Your task to perform on an android device: move an email to a new category in the gmail app Image 0: 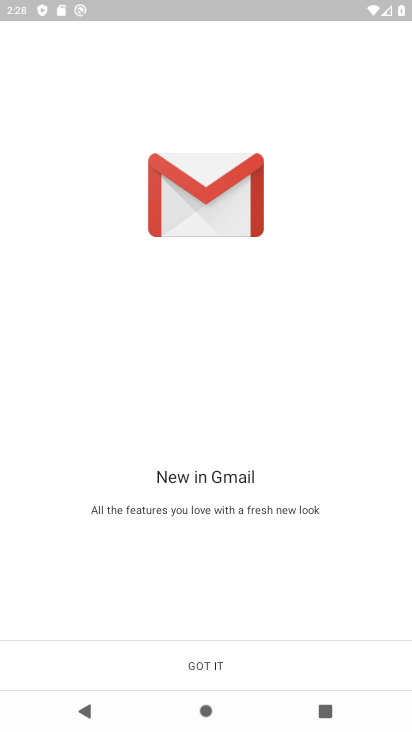
Step 0: click (226, 668)
Your task to perform on an android device: move an email to a new category in the gmail app Image 1: 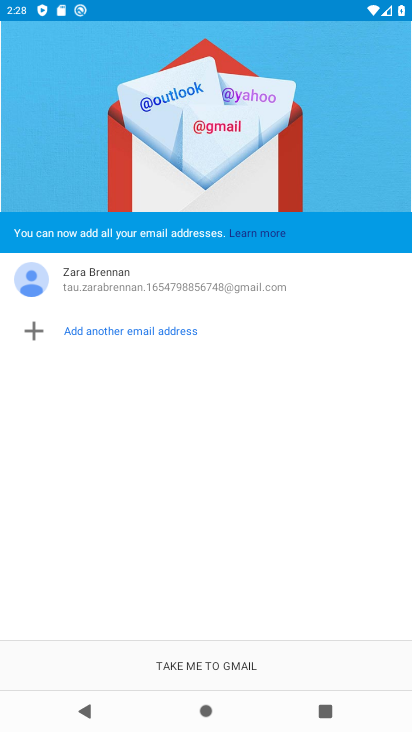
Step 1: click (226, 668)
Your task to perform on an android device: move an email to a new category in the gmail app Image 2: 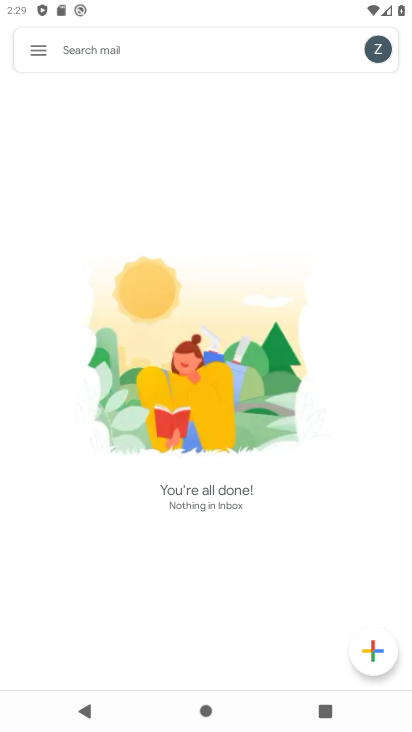
Step 2: task complete